Your task to perform on an android device: Is it going to rain this weekend? Image 0: 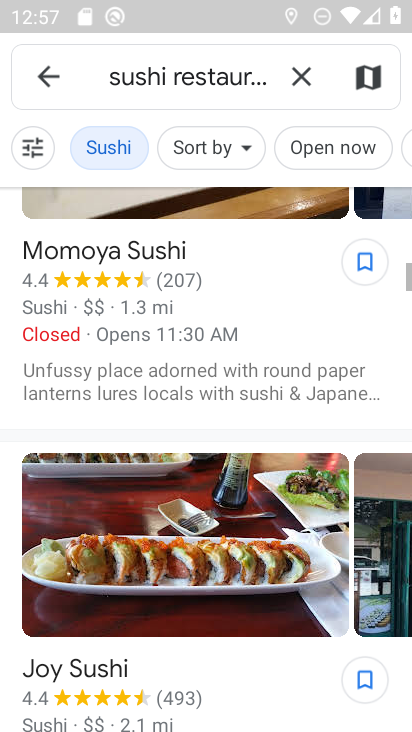
Step 0: press home button
Your task to perform on an android device: Is it going to rain this weekend? Image 1: 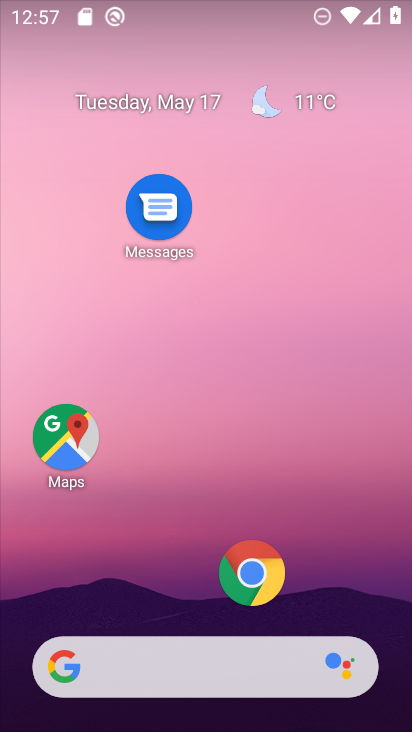
Step 1: click (312, 96)
Your task to perform on an android device: Is it going to rain this weekend? Image 2: 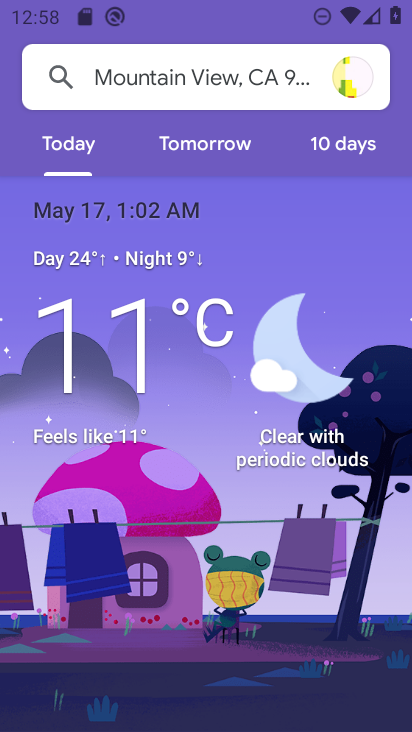
Step 2: drag from (186, 622) to (220, 245)
Your task to perform on an android device: Is it going to rain this weekend? Image 3: 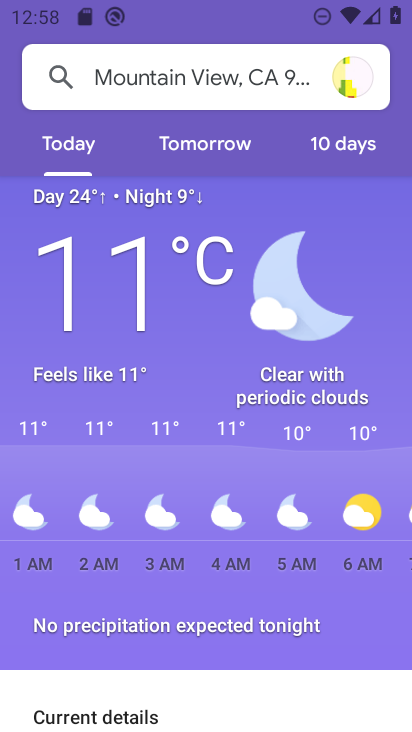
Step 3: click (334, 140)
Your task to perform on an android device: Is it going to rain this weekend? Image 4: 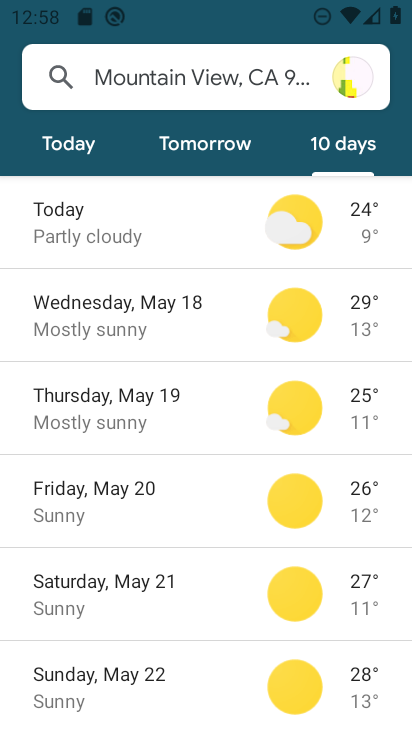
Step 4: task complete